Your task to perform on an android device: turn vacation reply on in the gmail app Image 0: 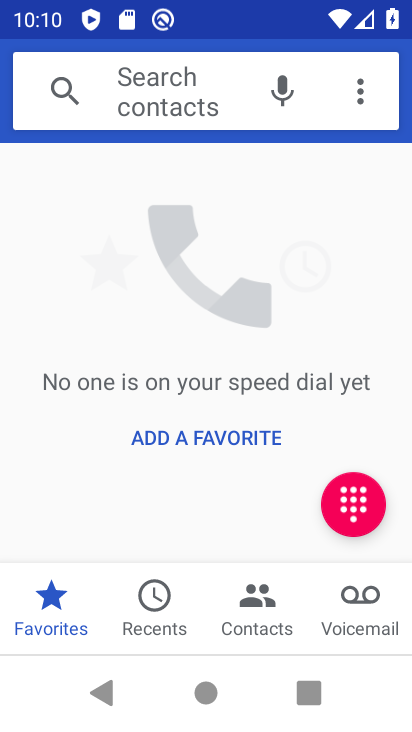
Step 0: click (352, 616)
Your task to perform on an android device: turn vacation reply on in the gmail app Image 1: 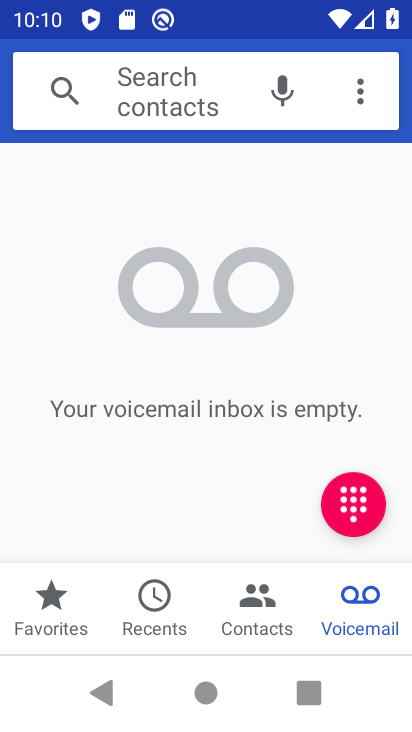
Step 1: task complete